Your task to perform on an android device: open app "Adobe Acrobat Reader" (install if not already installed) and go to login screen Image 0: 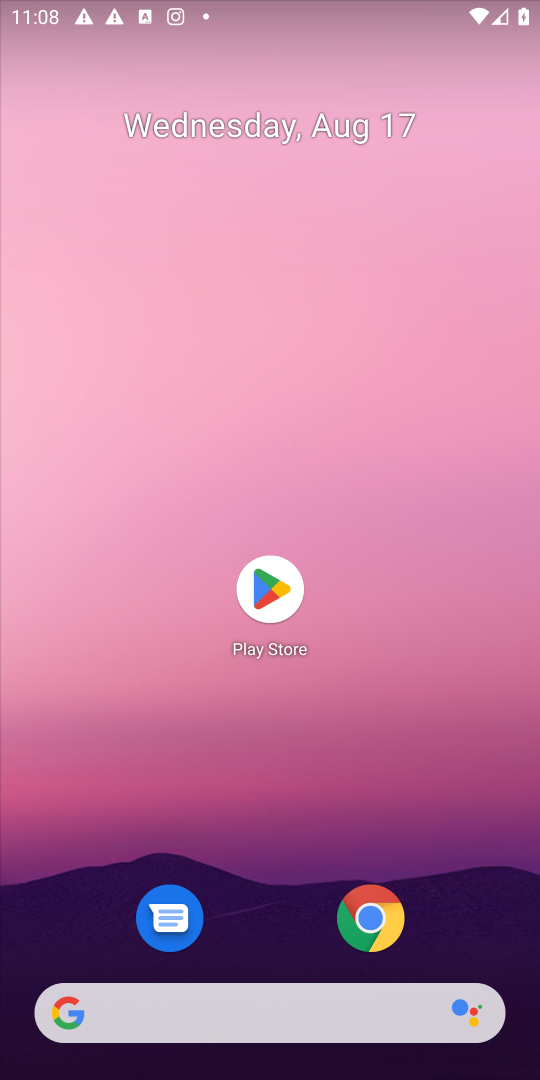
Step 0: click (278, 597)
Your task to perform on an android device: open app "Adobe Acrobat Reader" (install if not already installed) and go to login screen Image 1: 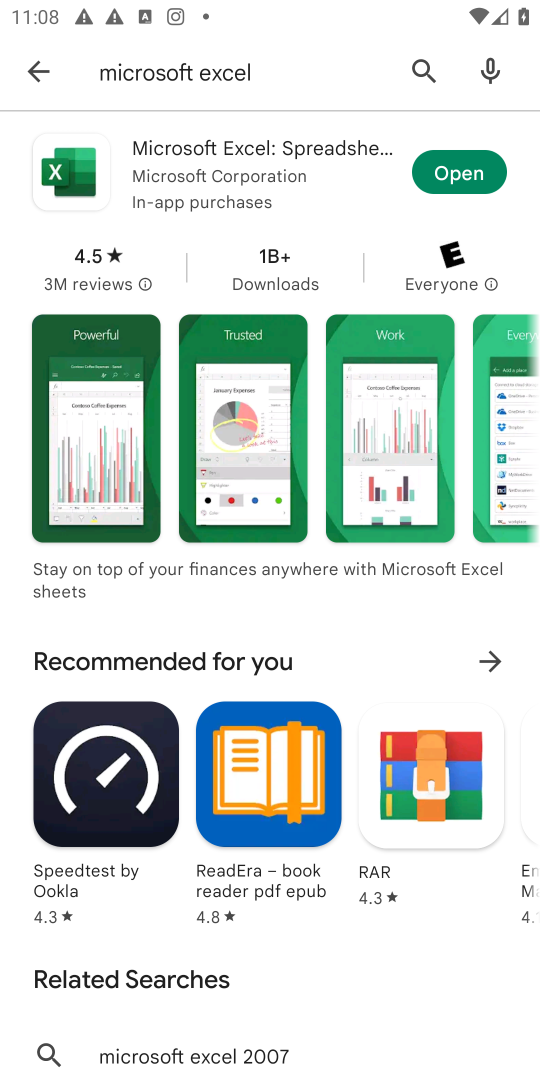
Step 1: click (417, 69)
Your task to perform on an android device: open app "Adobe Acrobat Reader" (install if not already installed) and go to login screen Image 2: 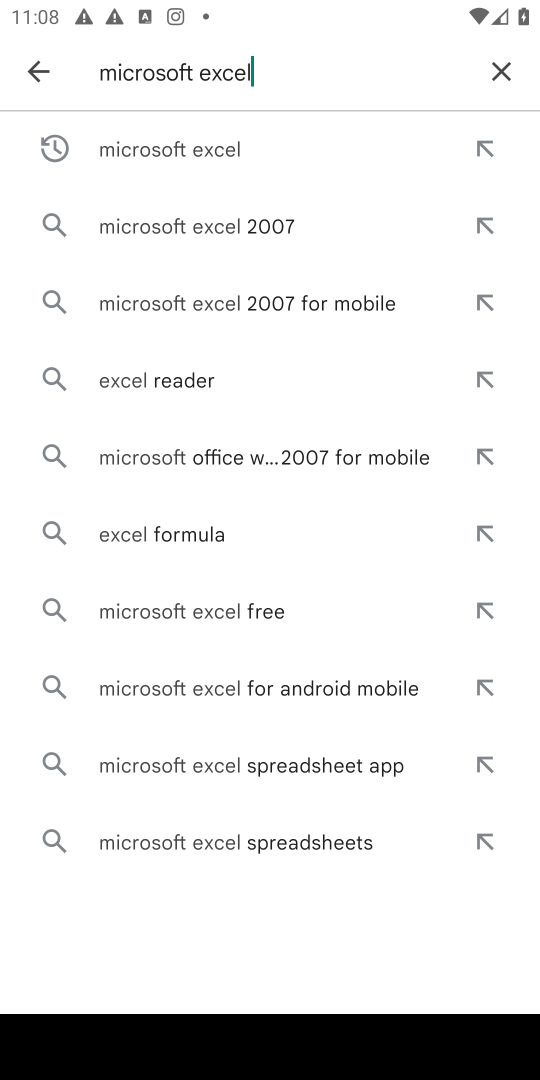
Step 2: click (495, 72)
Your task to perform on an android device: open app "Adobe Acrobat Reader" (install if not already installed) and go to login screen Image 3: 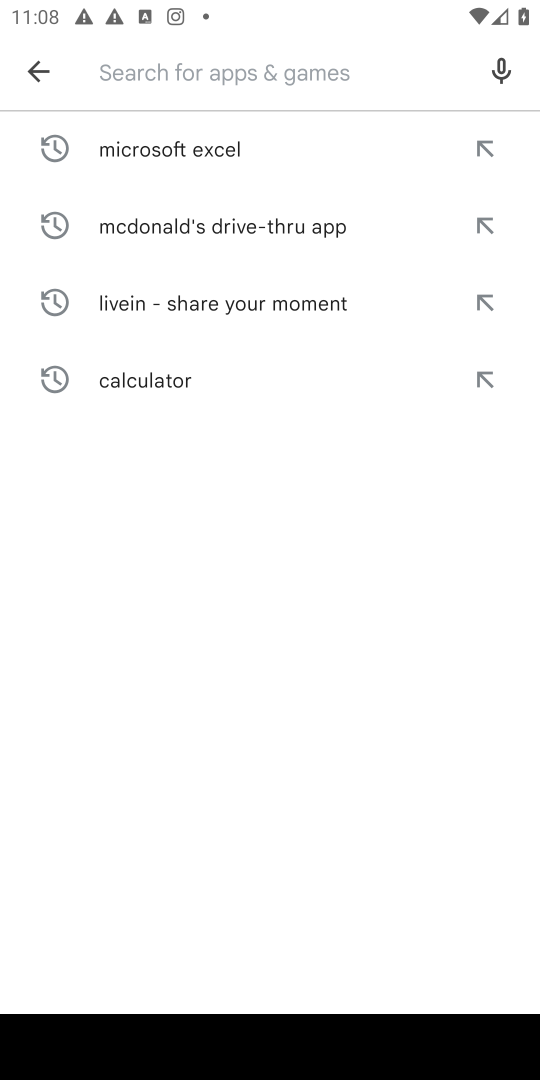
Step 3: type "Adobe Acrobat Reader"
Your task to perform on an android device: open app "Adobe Acrobat Reader" (install if not already installed) and go to login screen Image 4: 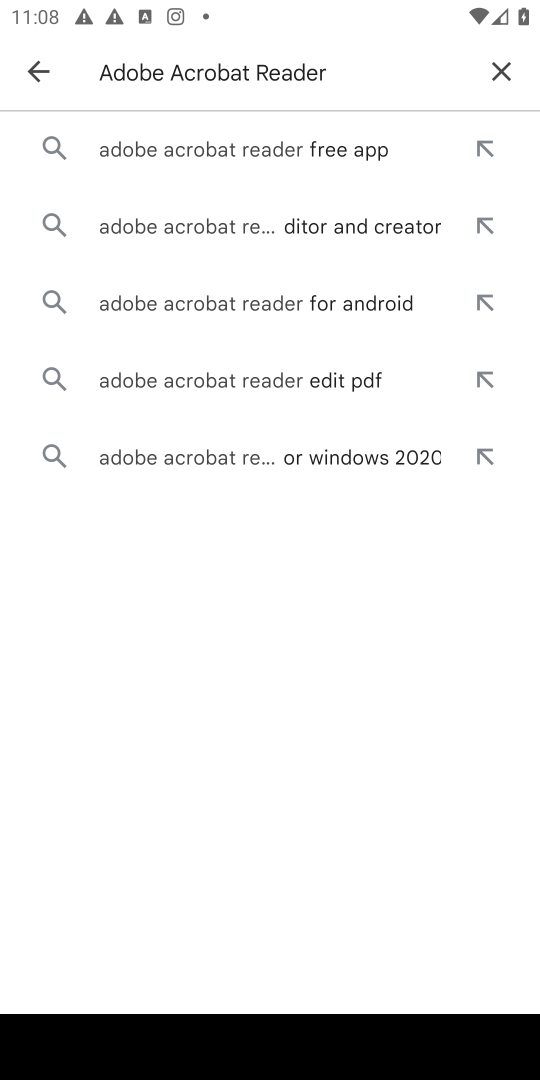
Step 4: click (330, 152)
Your task to perform on an android device: open app "Adobe Acrobat Reader" (install if not already installed) and go to login screen Image 5: 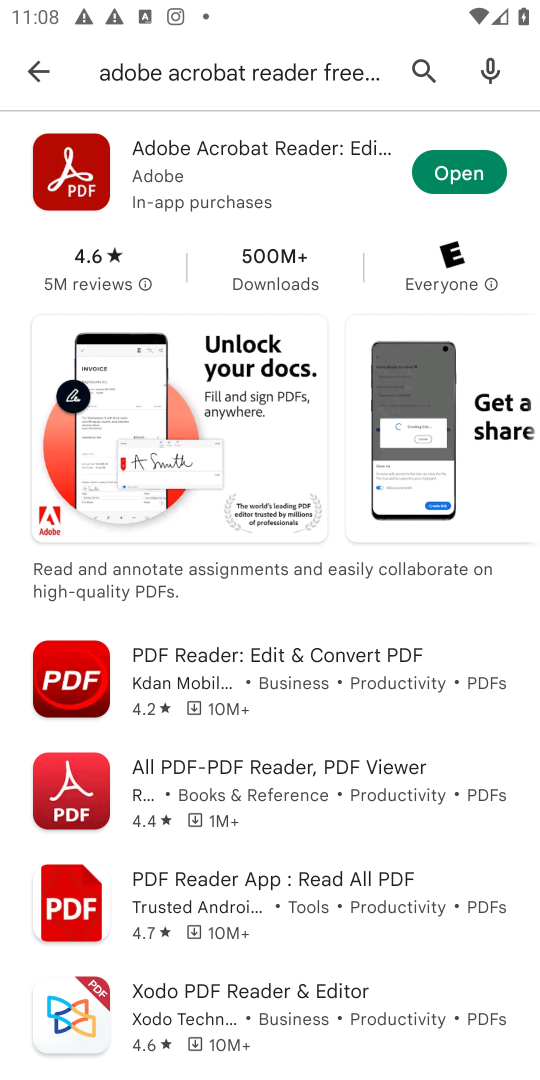
Step 5: click (476, 155)
Your task to perform on an android device: open app "Adobe Acrobat Reader" (install if not already installed) and go to login screen Image 6: 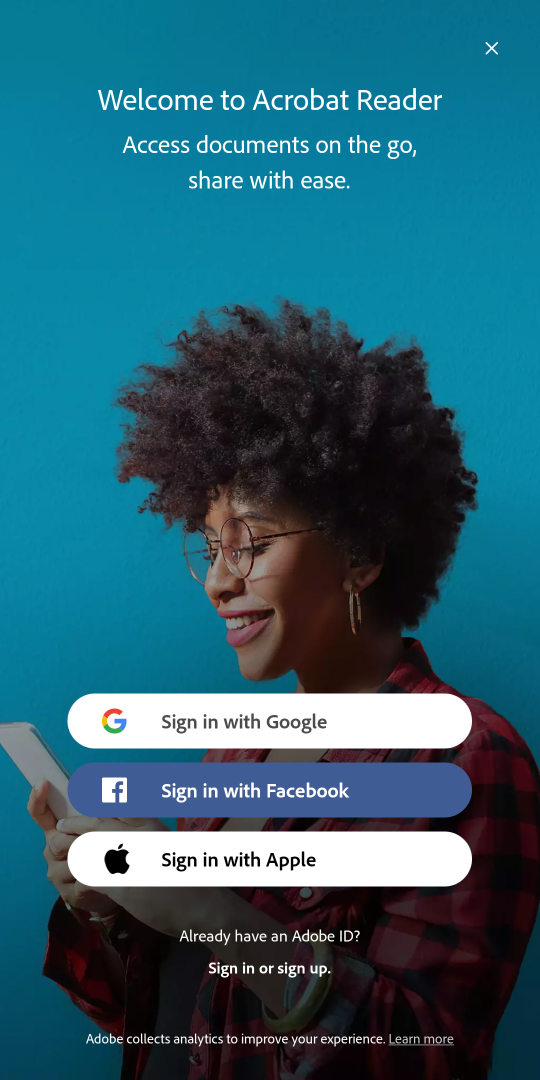
Step 6: task complete